Your task to perform on an android device: move an email to a new category in the gmail app Image 0: 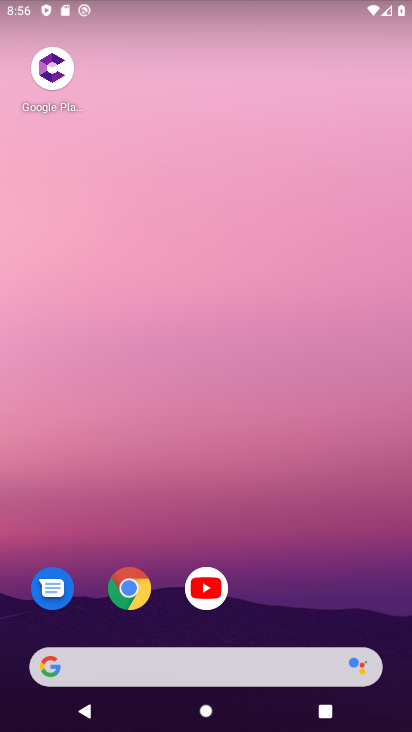
Step 0: drag from (43, 411) to (390, 522)
Your task to perform on an android device: move an email to a new category in the gmail app Image 1: 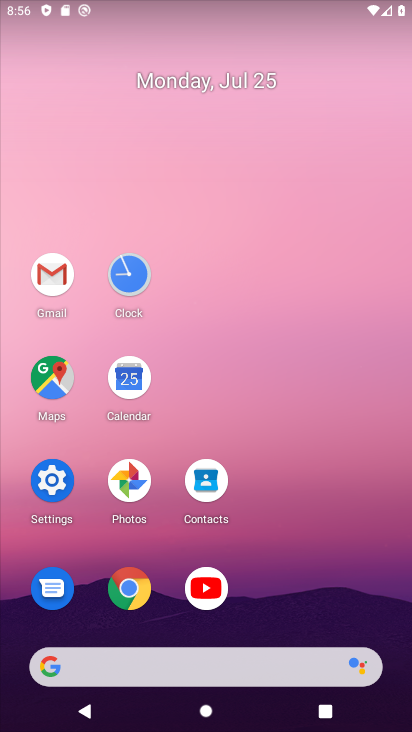
Step 1: click (46, 274)
Your task to perform on an android device: move an email to a new category in the gmail app Image 2: 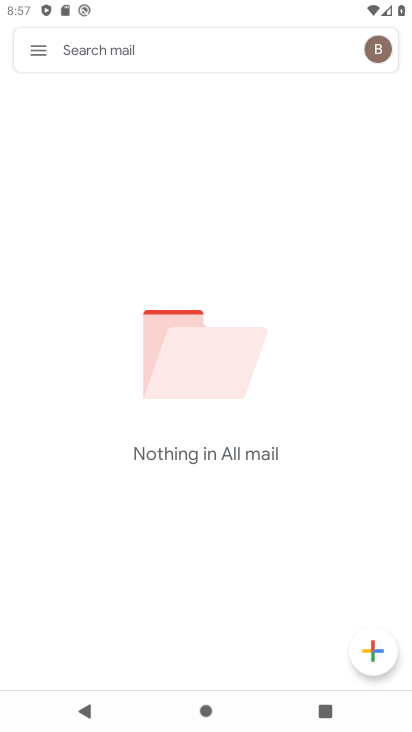
Step 2: task complete